Your task to perform on an android device: delete a single message in the gmail app Image 0: 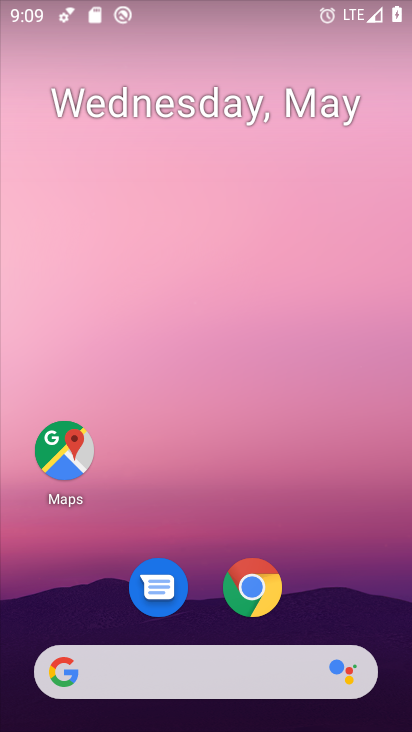
Step 0: drag from (196, 602) to (244, 137)
Your task to perform on an android device: delete a single message in the gmail app Image 1: 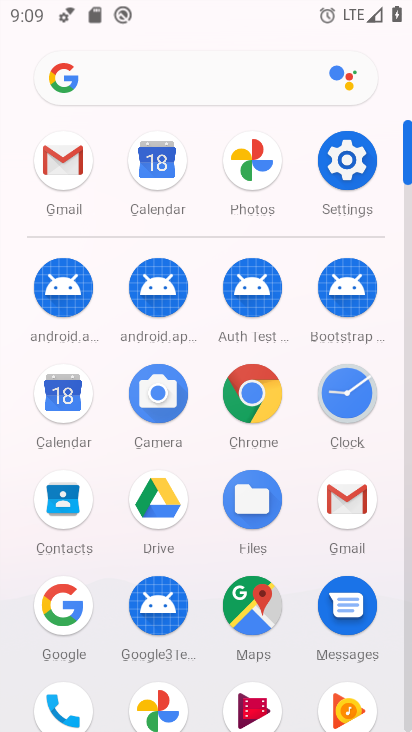
Step 1: click (360, 500)
Your task to perform on an android device: delete a single message in the gmail app Image 2: 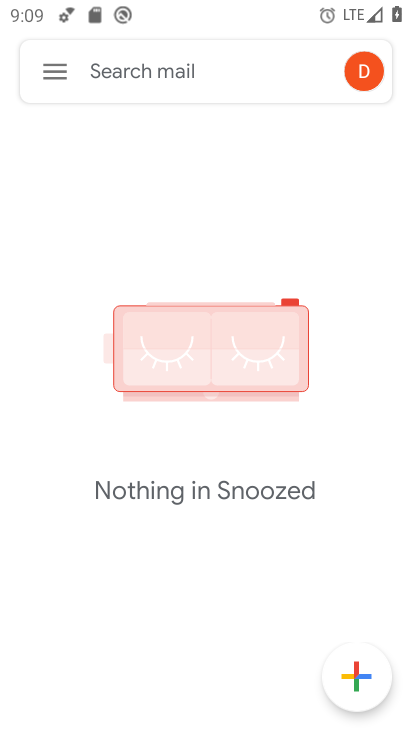
Step 2: click (58, 74)
Your task to perform on an android device: delete a single message in the gmail app Image 3: 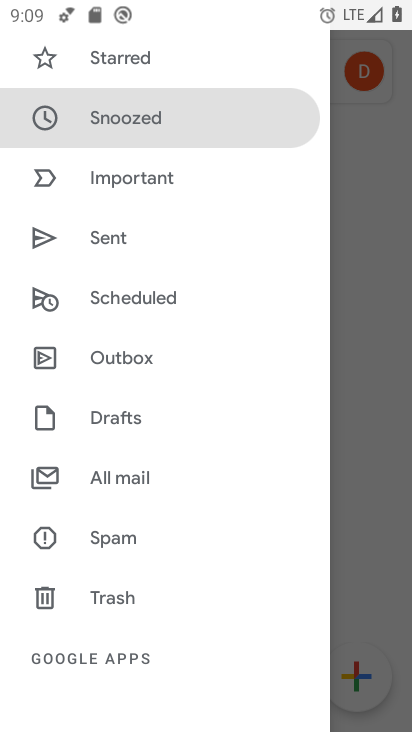
Step 3: click (152, 479)
Your task to perform on an android device: delete a single message in the gmail app Image 4: 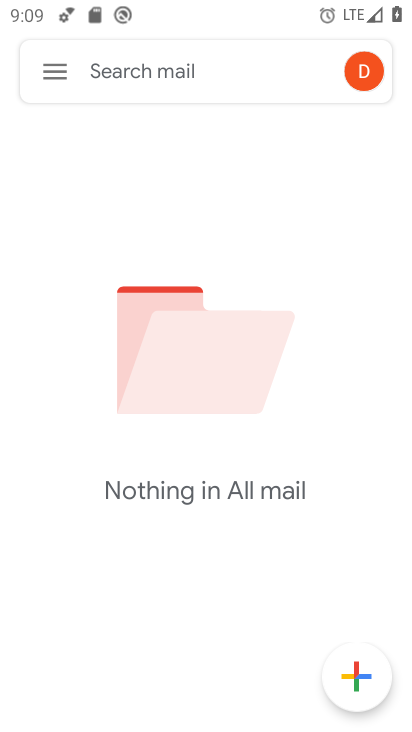
Step 4: task complete